Your task to perform on an android device: Show me popular videos on Youtube Image 0: 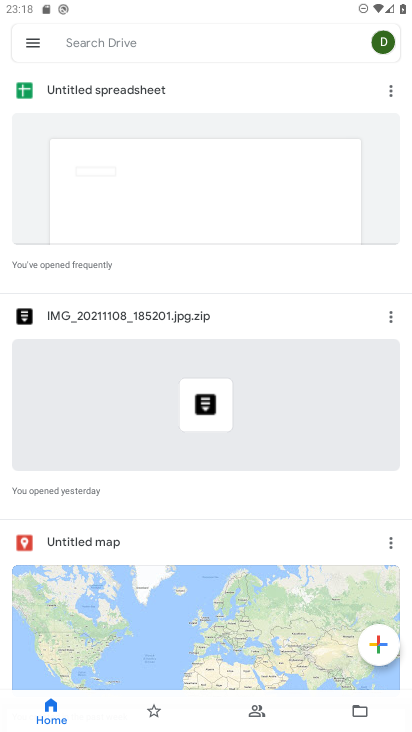
Step 0: press home button
Your task to perform on an android device: Show me popular videos on Youtube Image 1: 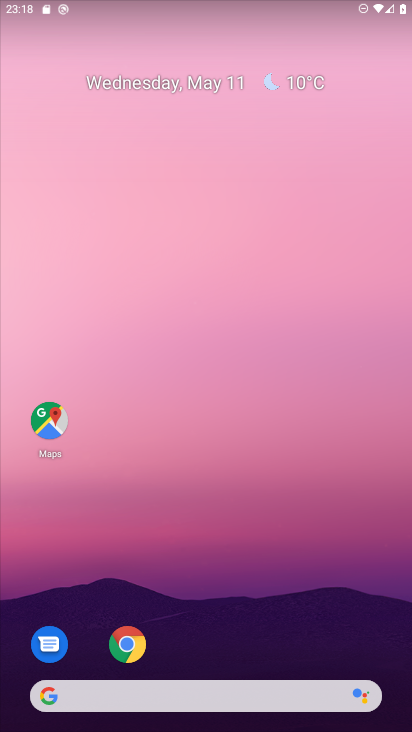
Step 1: click (257, 625)
Your task to perform on an android device: Show me popular videos on Youtube Image 2: 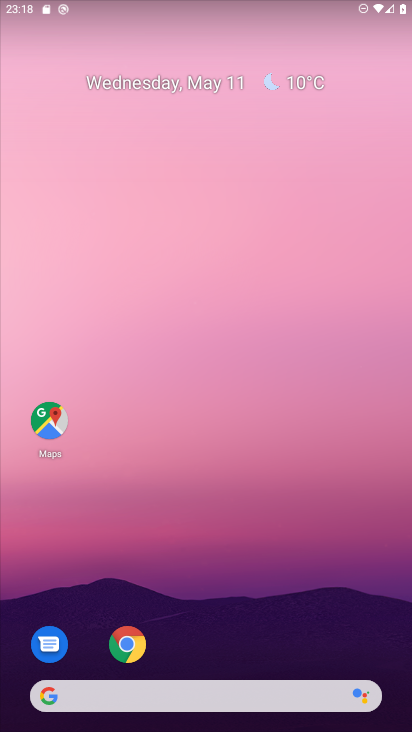
Step 2: drag from (257, 625) to (312, 24)
Your task to perform on an android device: Show me popular videos on Youtube Image 3: 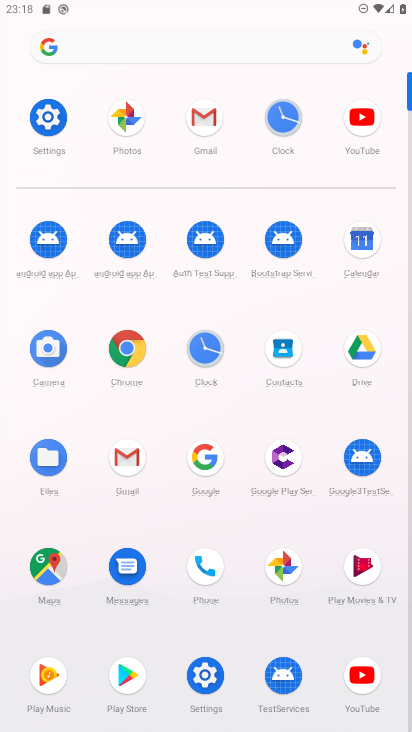
Step 3: click (365, 119)
Your task to perform on an android device: Show me popular videos on Youtube Image 4: 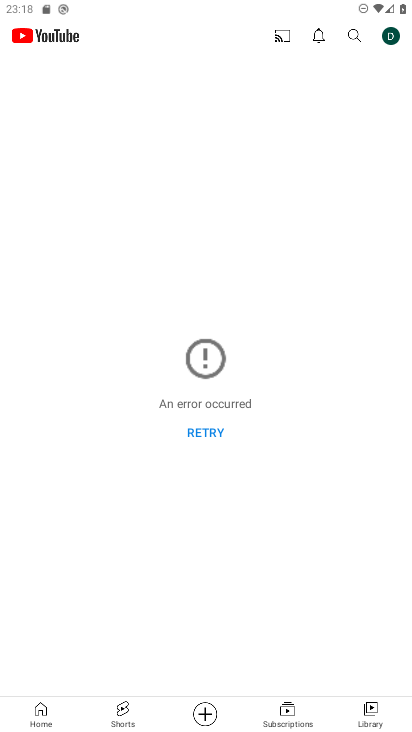
Step 4: click (31, 709)
Your task to perform on an android device: Show me popular videos on Youtube Image 5: 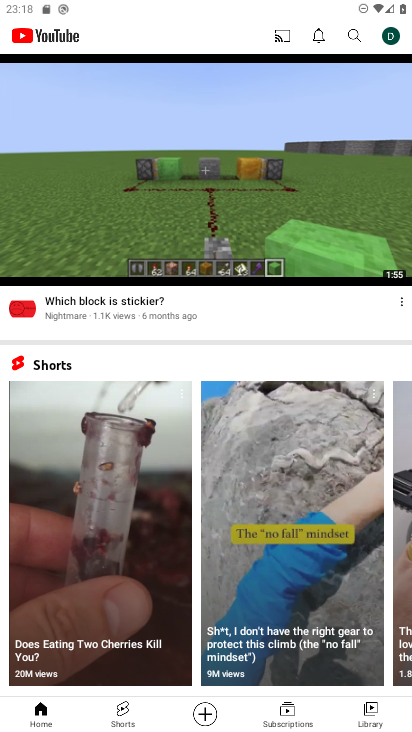
Step 5: task complete